Your task to perform on an android device: Go to ESPN.com Image 0: 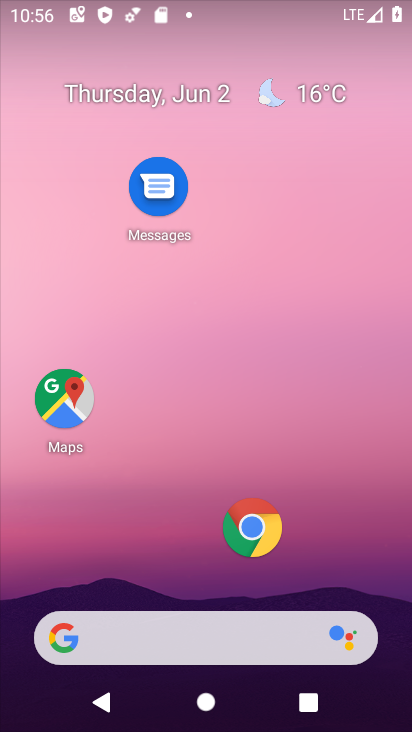
Step 0: press home button
Your task to perform on an android device: Go to ESPN.com Image 1: 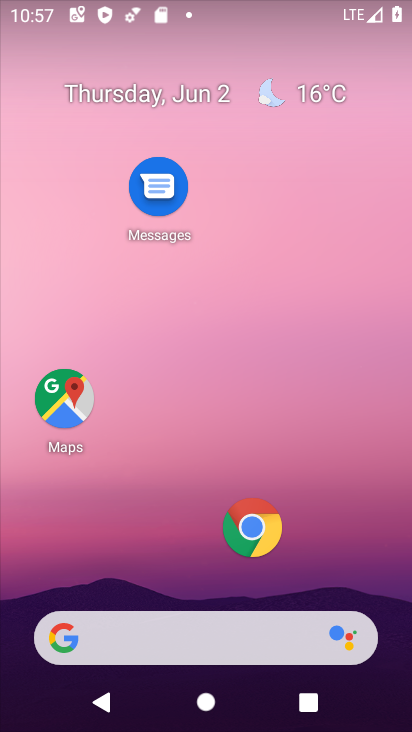
Step 1: click (250, 516)
Your task to perform on an android device: Go to ESPN.com Image 2: 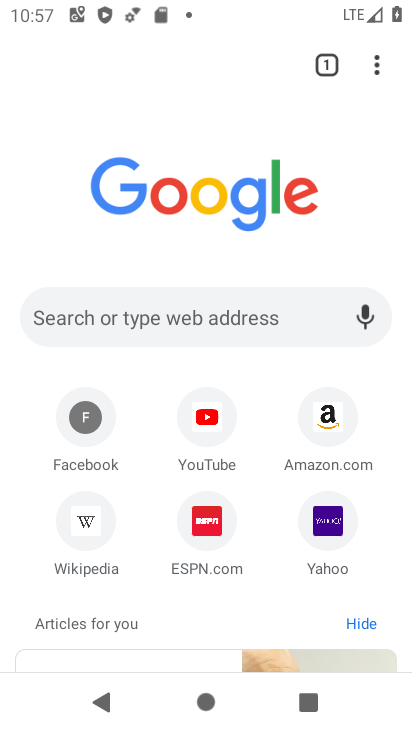
Step 2: click (200, 519)
Your task to perform on an android device: Go to ESPN.com Image 3: 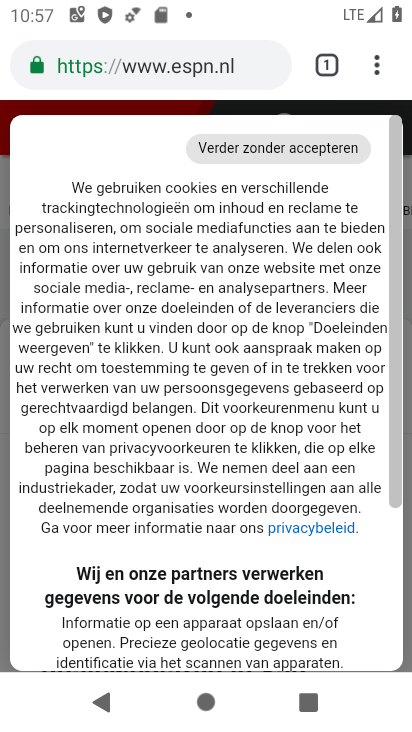
Step 3: drag from (216, 586) to (271, 213)
Your task to perform on an android device: Go to ESPN.com Image 4: 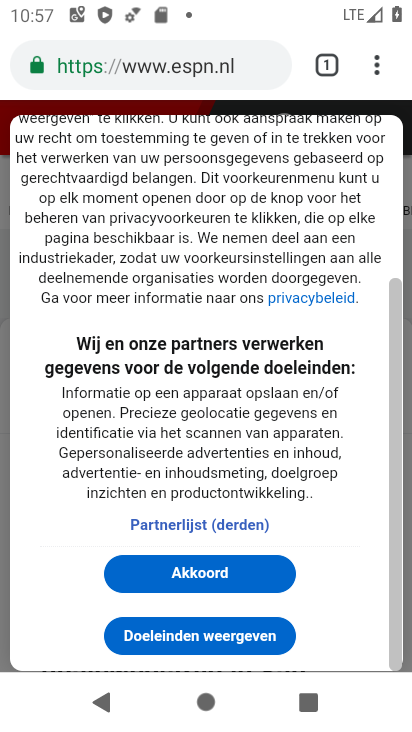
Step 4: click (211, 565)
Your task to perform on an android device: Go to ESPN.com Image 5: 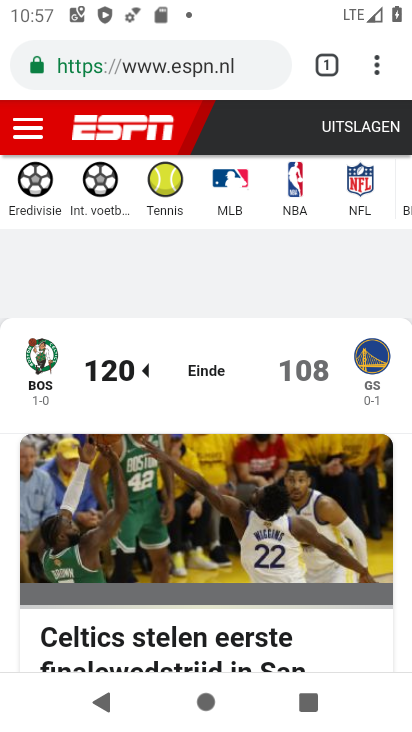
Step 5: task complete